Your task to perform on an android device: Open internet settings Image 0: 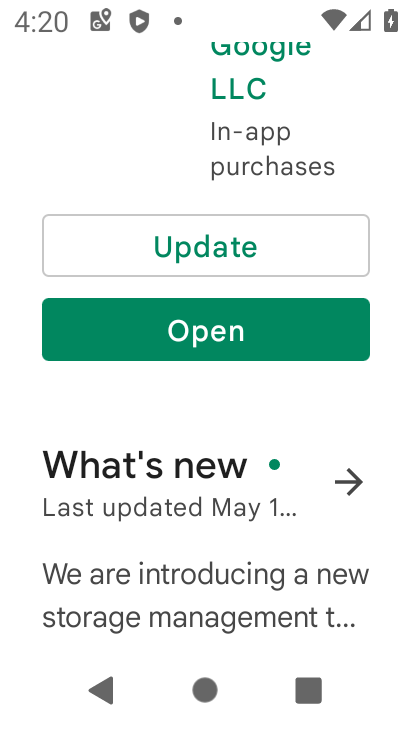
Step 0: press home button
Your task to perform on an android device: Open internet settings Image 1: 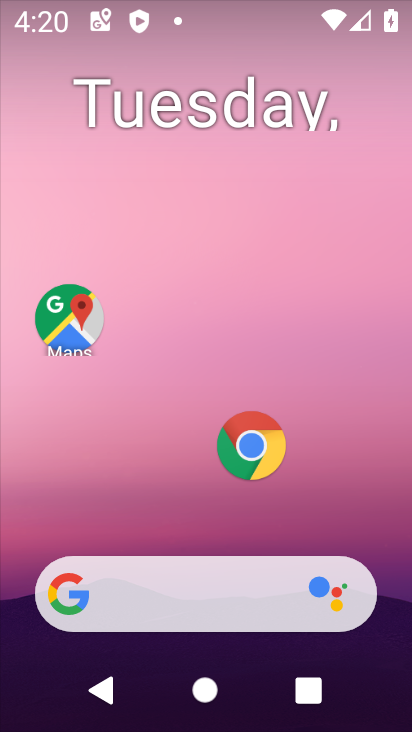
Step 1: drag from (181, 532) to (243, 2)
Your task to perform on an android device: Open internet settings Image 2: 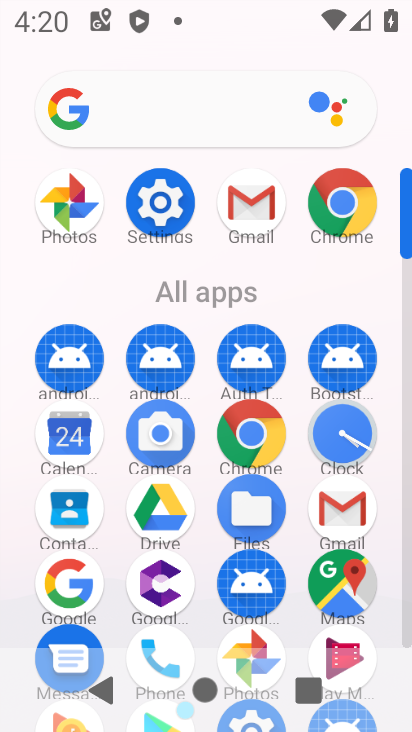
Step 2: click (164, 211)
Your task to perform on an android device: Open internet settings Image 3: 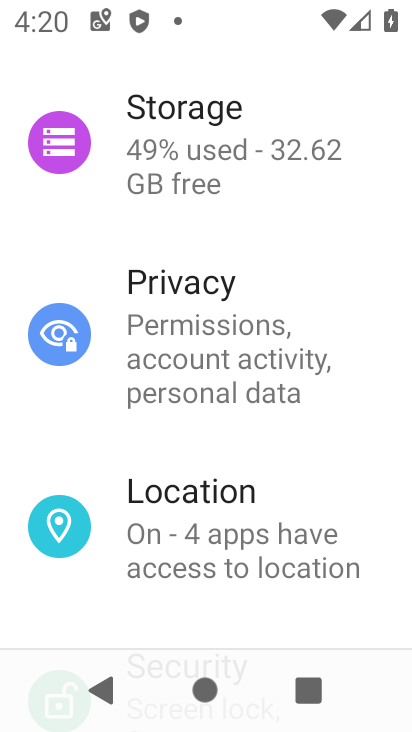
Step 3: drag from (202, 497) to (221, 692)
Your task to perform on an android device: Open internet settings Image 4: 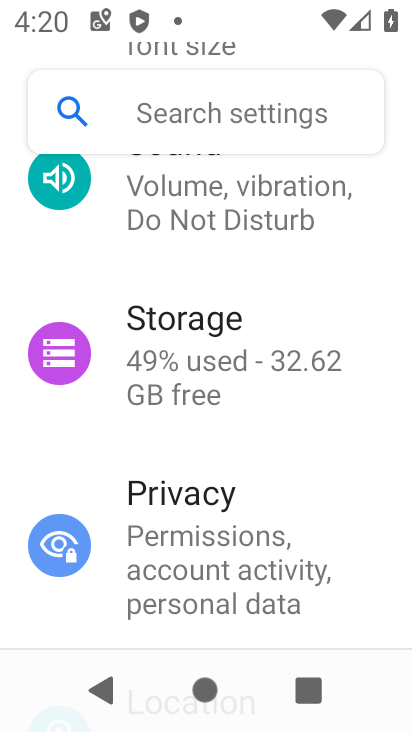
Step 4: drag from (235, 190) to (242, 478)
Your task to perform on an android device: Open internet settings Image 5: 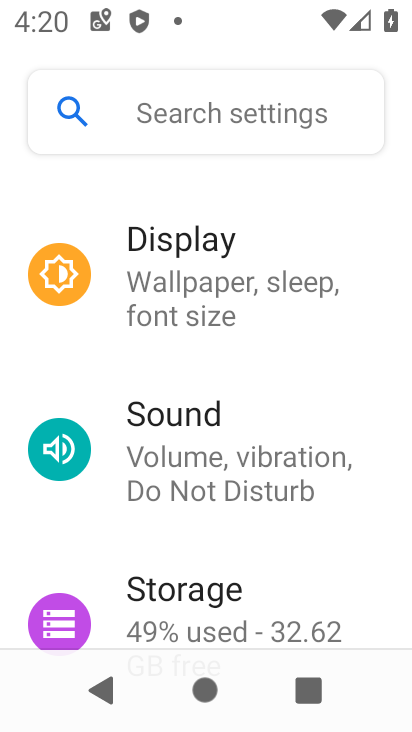
Step 5: drag from (243, 294) to (223, 697)
Your task to perform on an android device: Open internet settings Image 6: 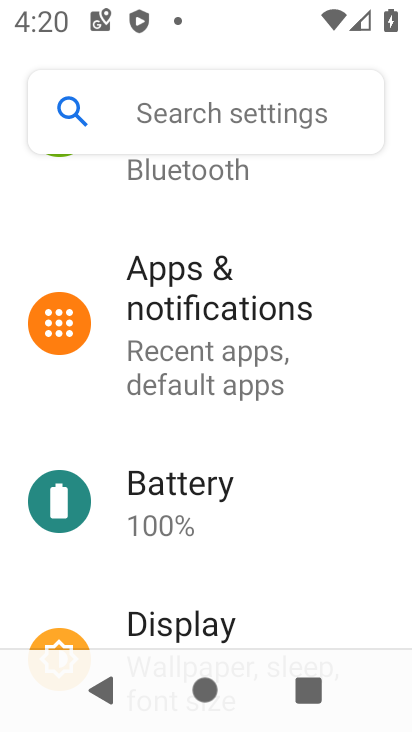
Step 6: drag from (287, 279) to (245, 710)
Your task to perform on an android device: Open internet settings Image 7: 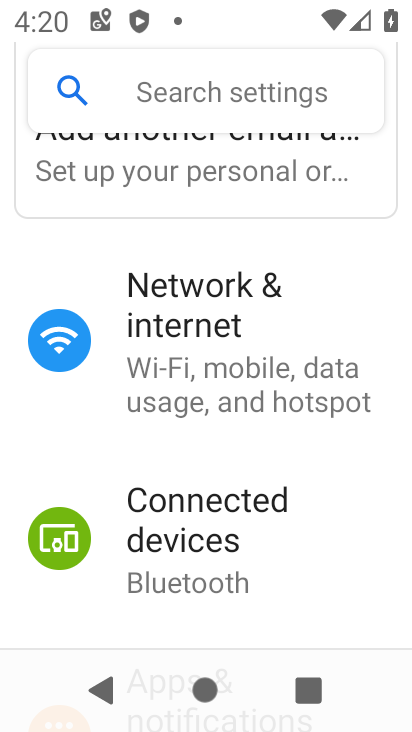
Step 7: click (213, 334)
Your task to perform on an android device: Open internet settings Image 8: 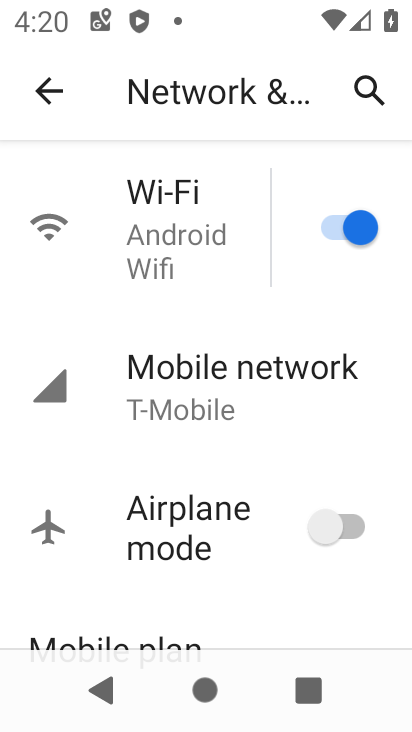
Step 8: task complete